Your task to perform on an android device: Open Chrome and go to the settings page Image 0: 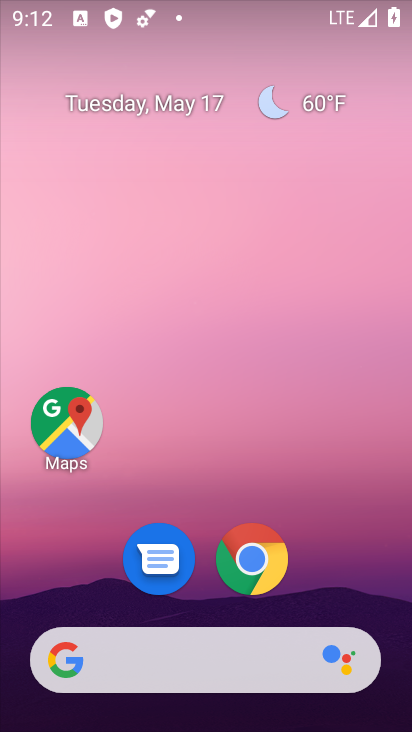
Step 0: click (246, 564)
Your task to perform on an android device: Open Chrome and go to the settings page Image 1: 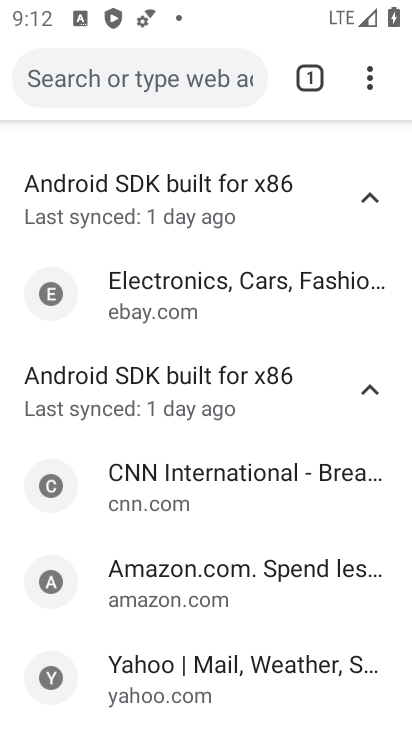
Step 1: task complete